Your task to perform on an android device: change the clock display to show seconds Image 0: 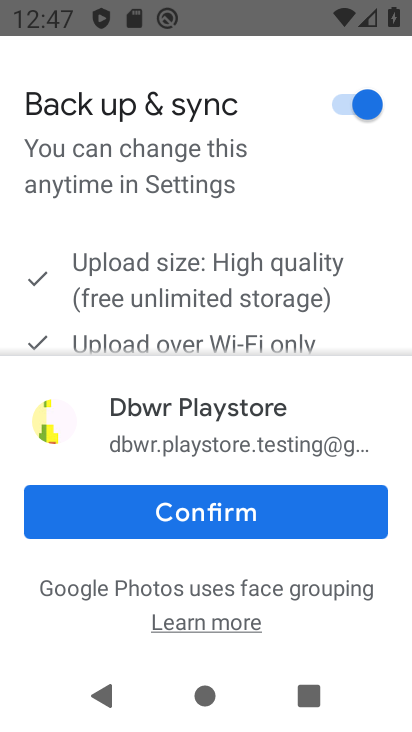
Step 0: click (249, 516)
Your task to perform on an android device: change the clock display to show seconds Image 1: 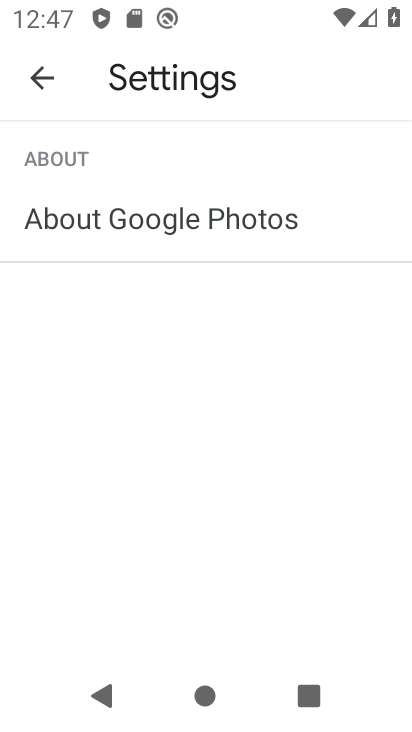
Step 1: press home button
Your task to perform on an android device: change the clock display to show seconds Image 2: 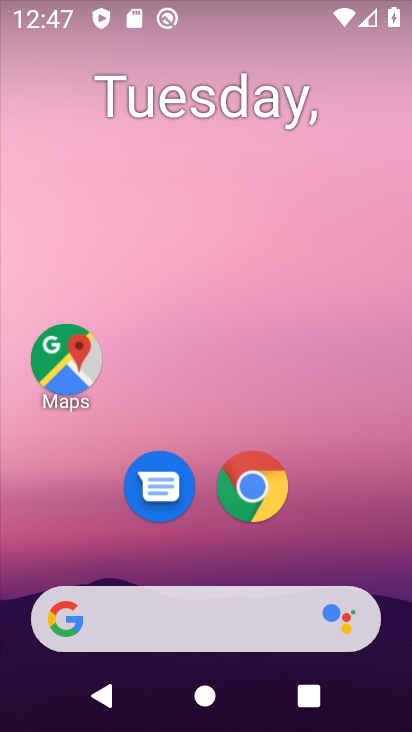
Step 2: drag from (326, 528) to (197, 41)
Your task to perform on an android device: change the clock display to show seconds Image 3: 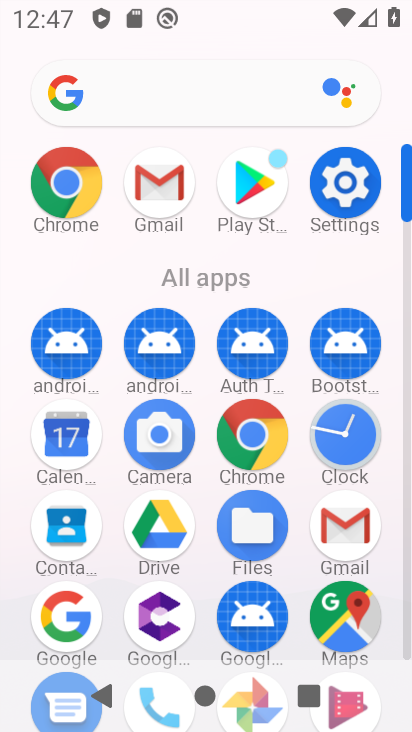
Step 3: click (358, 427)
Your task to perform on an android device: change the clock display to show seconds Image 4: 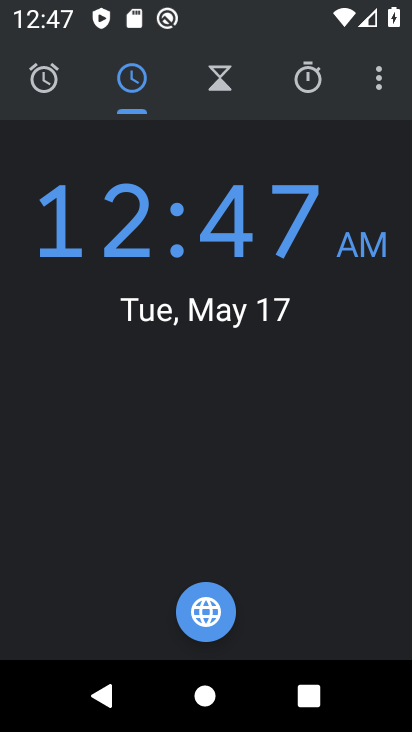
Step 4: click (377, 88)
Your task to perform on an android device: change the clock display to show seconds Image 5: 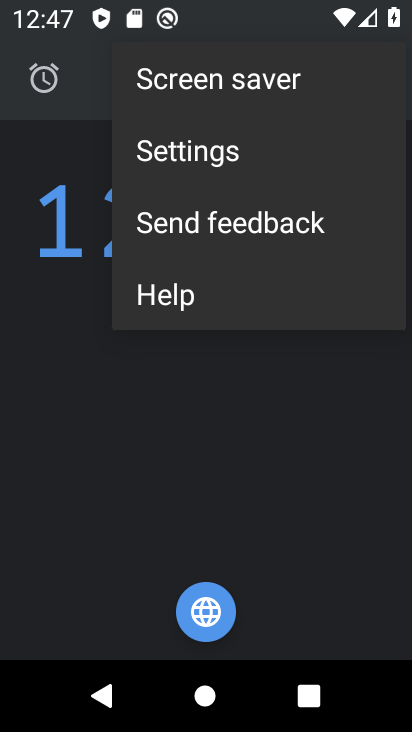
Step 5: click (306, 166)
Your task to perform on an android device: change the clock display to show seconds Image 6: 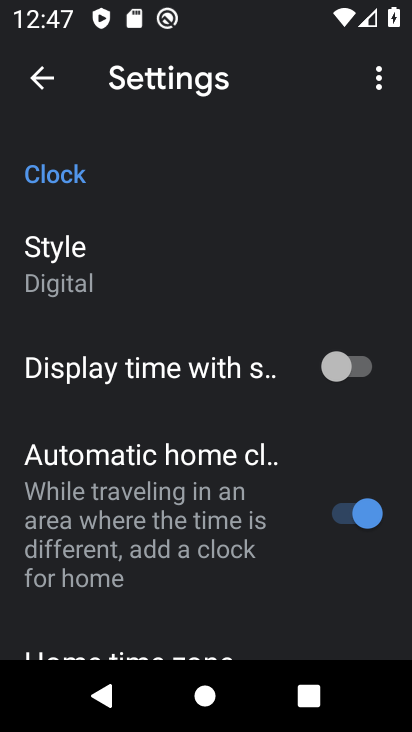
Step 6: click (358, 372)
Your task to perform on an android device: change the clock display to show seconds Image 7: 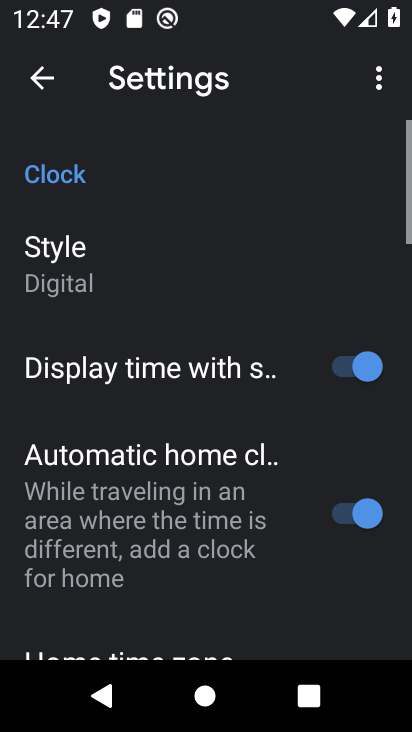
Step 7: task complete